Your task to perform on an android device: Go to Google maps Image 0: 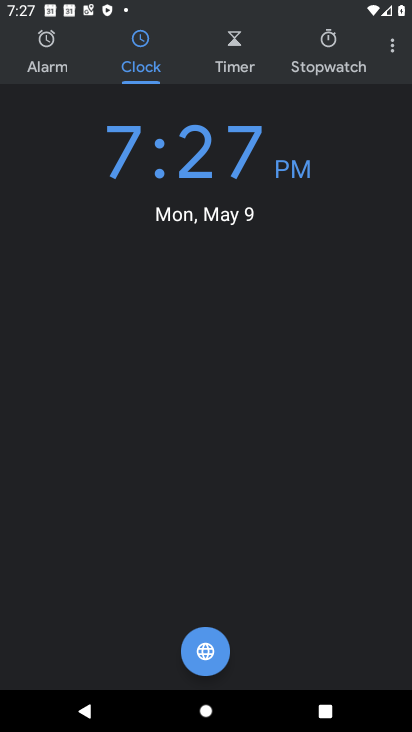
Step 0: press home button
Your task to perform on an android device: Go to Google maps Image 1: 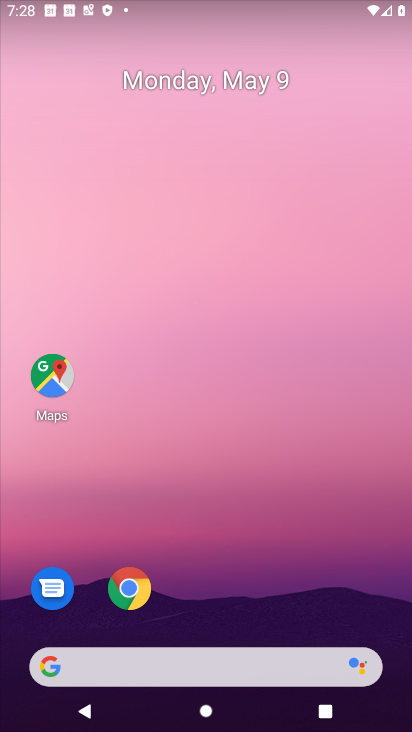
Step 1: click (47, 383)
Your task to perform on an android device: Go to Google maps Image 2: 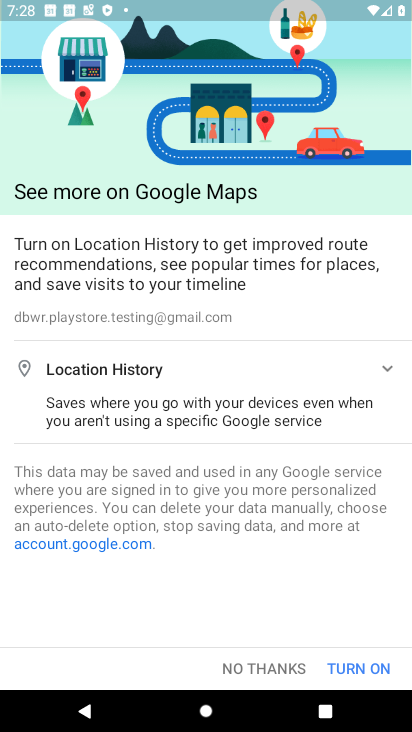
Step 2: click (238, 664)
Your task to perform on an android device: Go to Google maps Image 3: 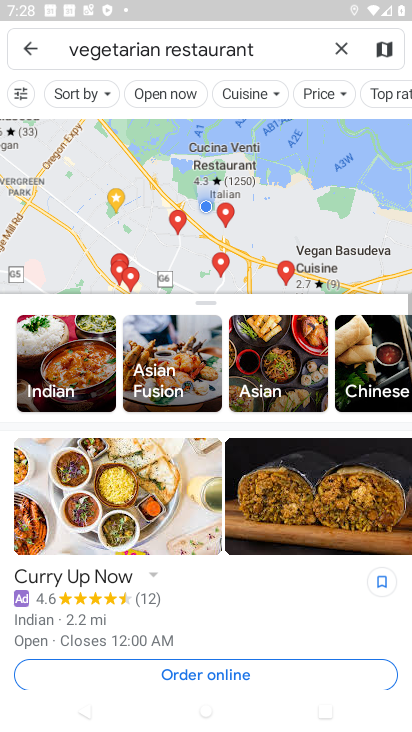
Step 3: task complete